Your task to perform on an android device: When is my next appointment? Image 0: 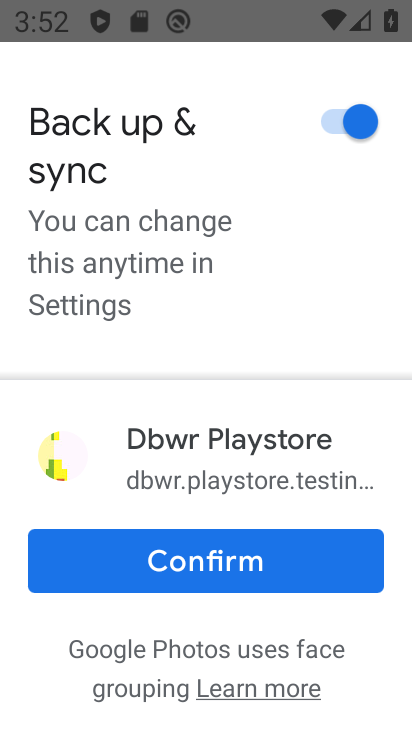
Step 0: press home button
Your task to perform on an android device: When is my next appointment? Image 1: 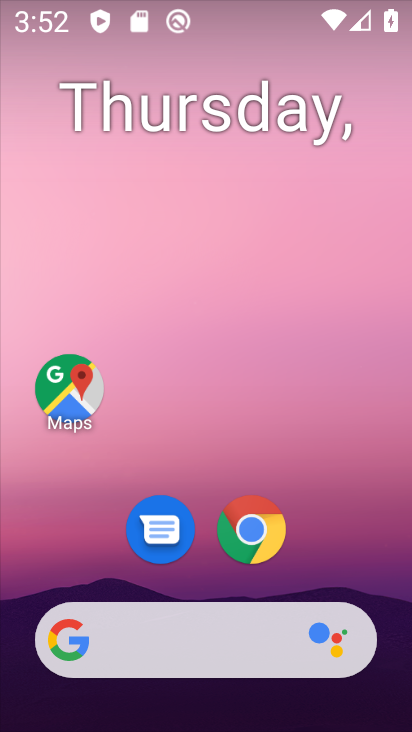
Step 1: drag from (222, 276) to (222, 150)
Your task to perform on an android device: When is my next appointment? Image 2: 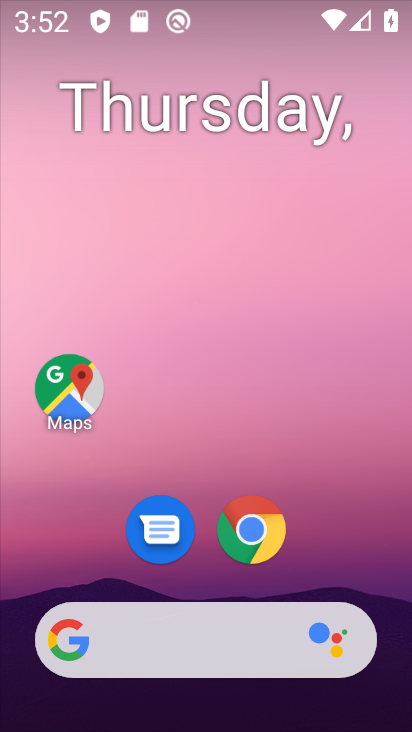
Step 2: drag from (214, 601) to (213, 240)
Your task to perform on an android device: When is my next appointment? Image 3: 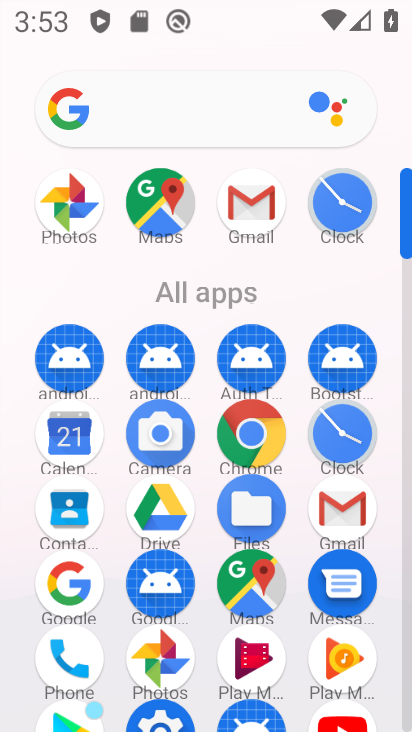
Step 3: click (63, 443)
Your task to perform on an android device: When is my next appointment? Image 4: 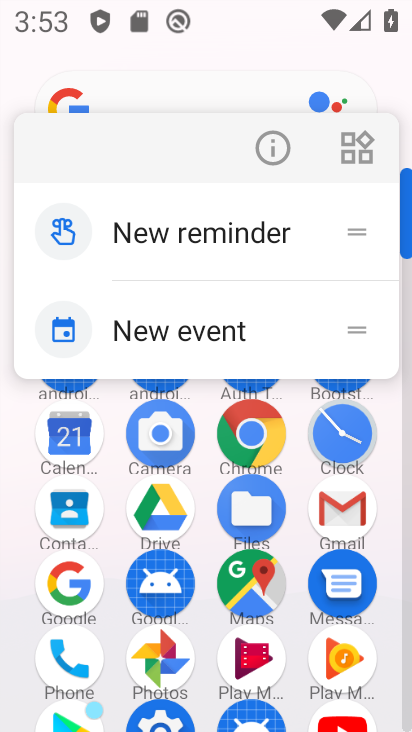
Step 4: click (63, 443)
Your task to perform on an android device: When is my next appointment? Image 5: 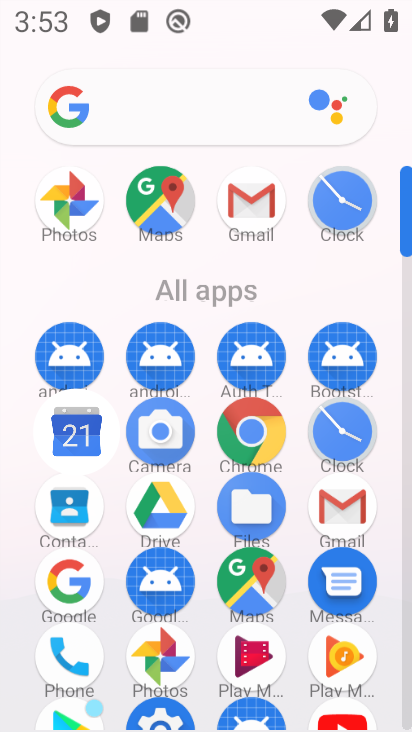
Step 5: click (63, 443)
Your task to perform on an android device: When is my next appointment? Image 6: 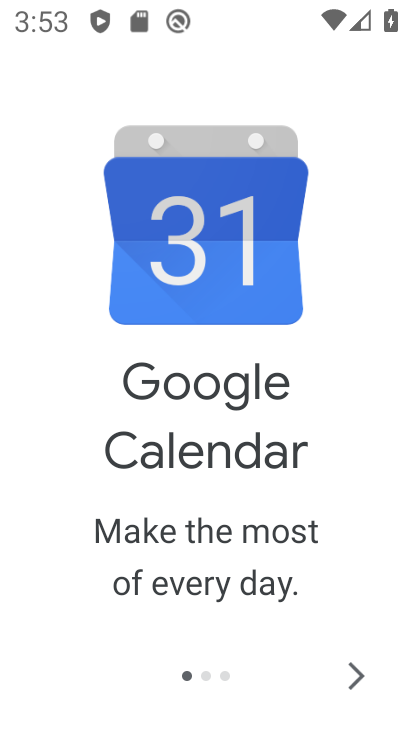
Step 6: click (353, 675)
Your task to perform on an android device: When is my next appointment? Image 7: 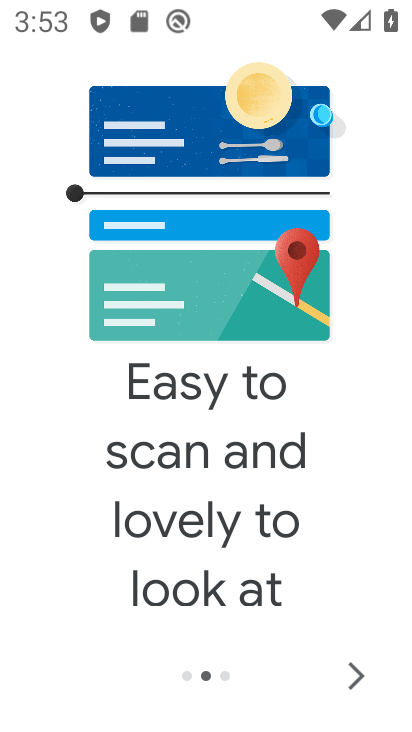
Step 7: click (353, 675)
Your task to perform on an android device: When is my next appointment? Image 8: 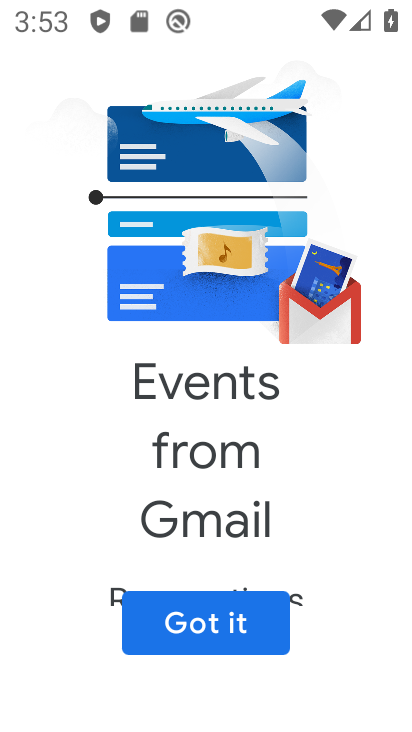
Step 8: click (238, 637)
Your task to perform on an android device: When is my next appointment? Image 9: 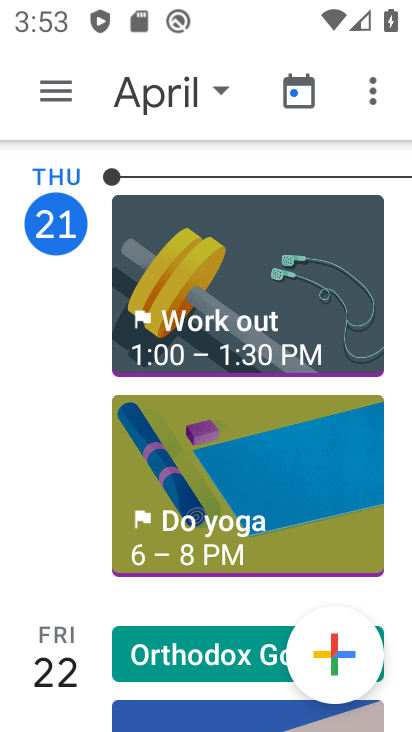
Step 9: click (66, 91)
Your task to perform on an android device: When is my next appointment? Image 10: 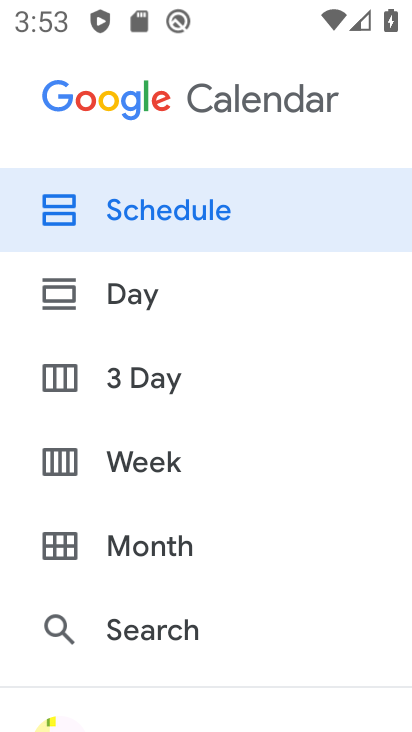
Step 10: click (119, 233)
Your task to perform on an android device: When is my next appointment? Image 11: 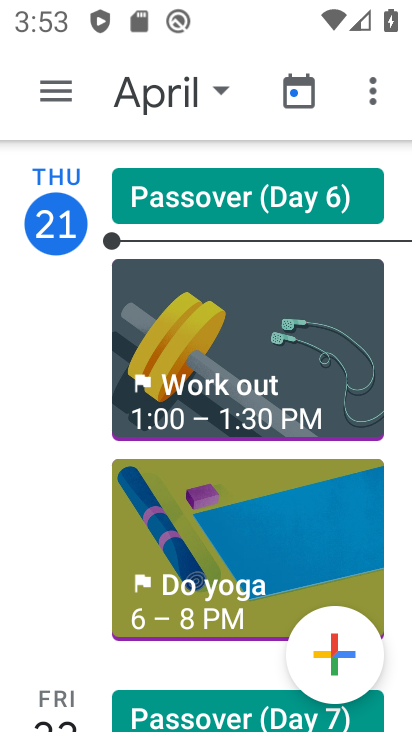
Step 11: task complete